Your task to perform on an android device: change the upload size in google photos Image 0: 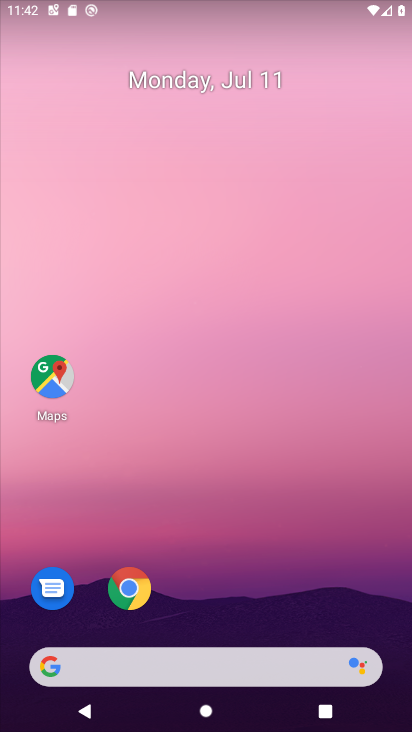
Step 0: drag from (256, 673) to (223, 270)
Your task to perform on an android device: change the upload size in google photos Image 1: 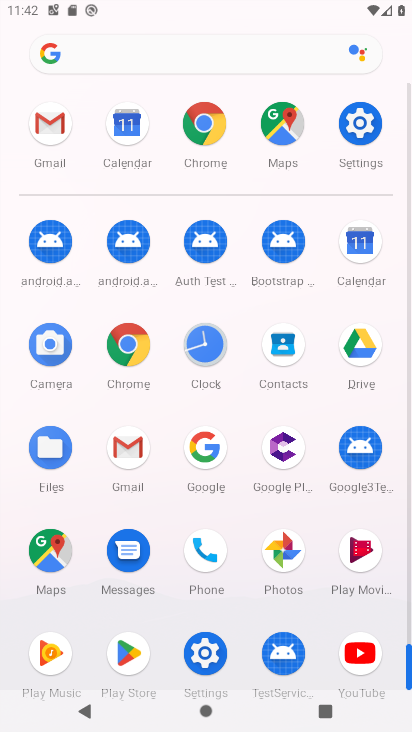
Step 1: click (275, 551)
Your task to perform on an android device: change the upload size in google photos Image 2: 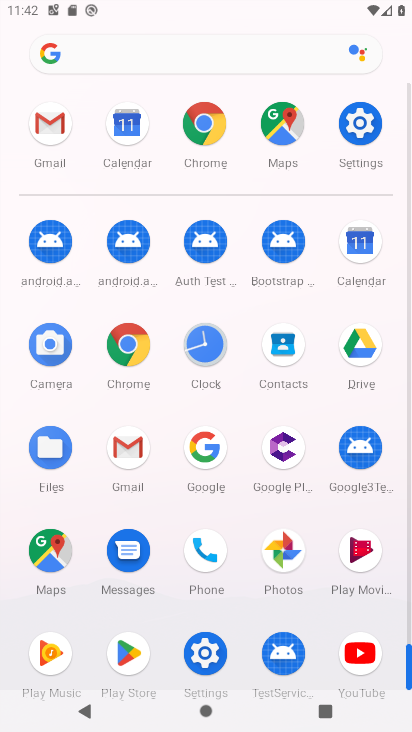
Step 2: click (274, 551)
Your task to perform on an android device: change the upload size in google photos Image 3: 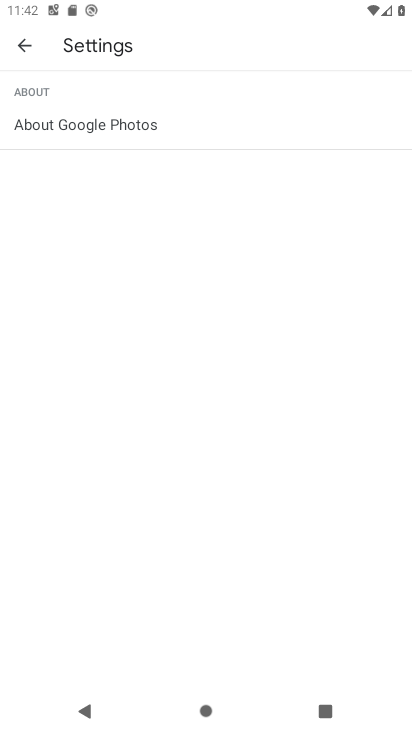
Step 3: click (286, 553)
Your task to perform on an android device: change the upload size in google photos Image 4: 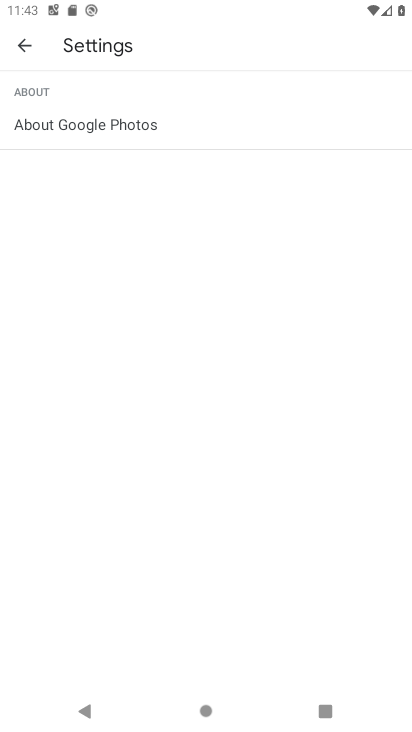
Step 4: click (29, 51)
Your task to perform on an android device: change the upload size in google photos Image 5: 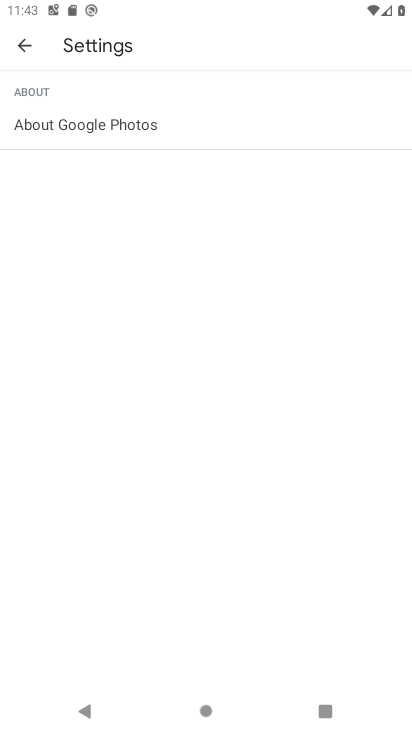
Step 5: click (23, 49)
Your task to perform on an android device: change the upload size in google photos Image 6: 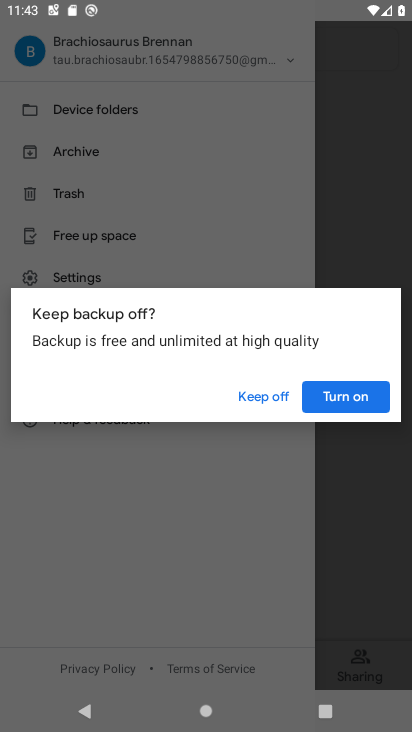
Step 6: click (251, 396)
Your task to perform on an android device: change the upload size in google photos Image 7: 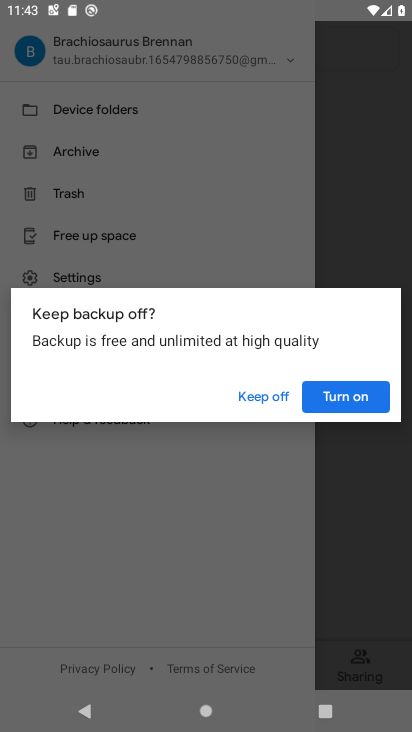
Step 7: click (248, 395)
Your task to perform on an android device: change the upload size in google photos Image 8: 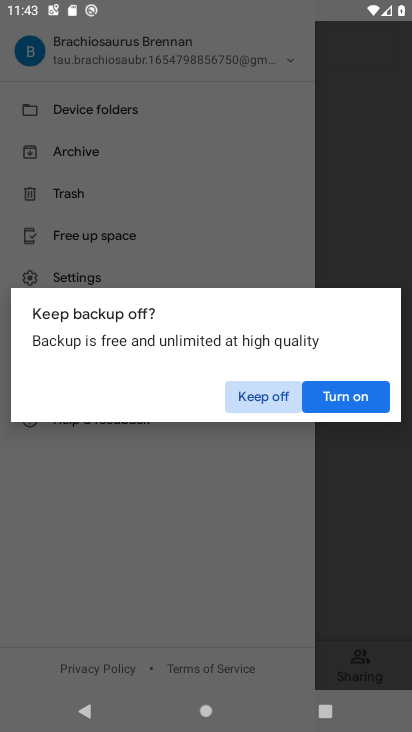
Step 8: click (248, 395)
Your task to perform on an android device: change the upload size in google photos Image 9: 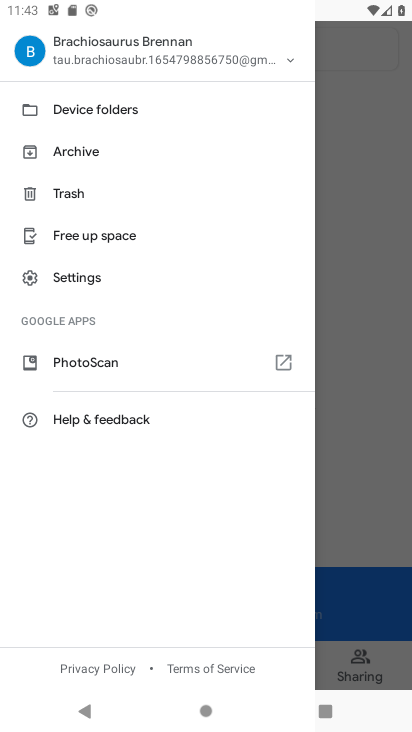
Step 9: click (73, 278)
Your task to perform on an android device: change the upload size in google photos Image 10: 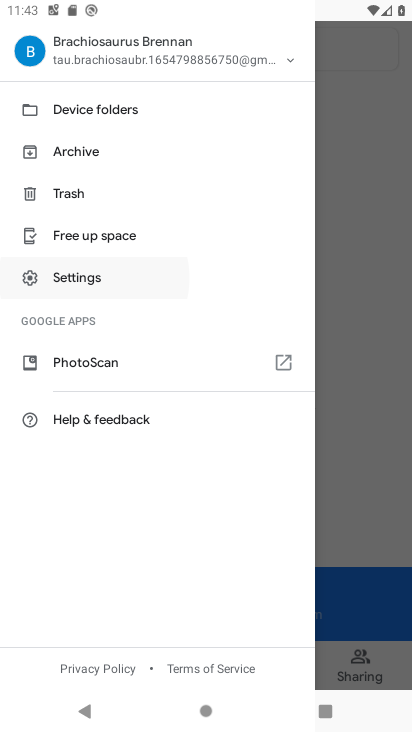
Step 10: click (73, 278)
Your task to perform on an android device: change the upload size in google photos Image 11: 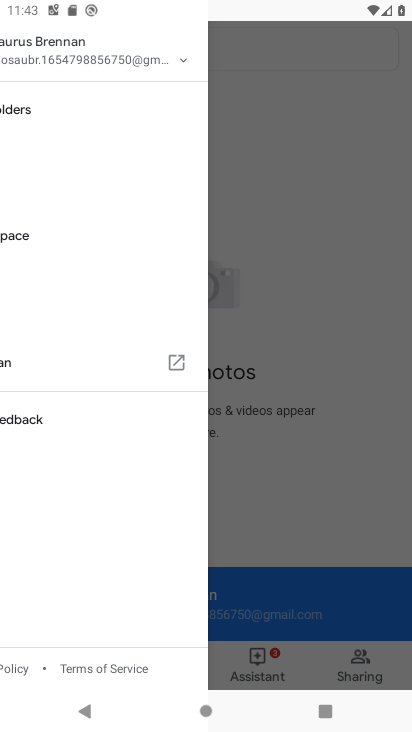
Step 11: click (74, 279)
Your task to perform on an android device: change the upload size in google photos Image 12: 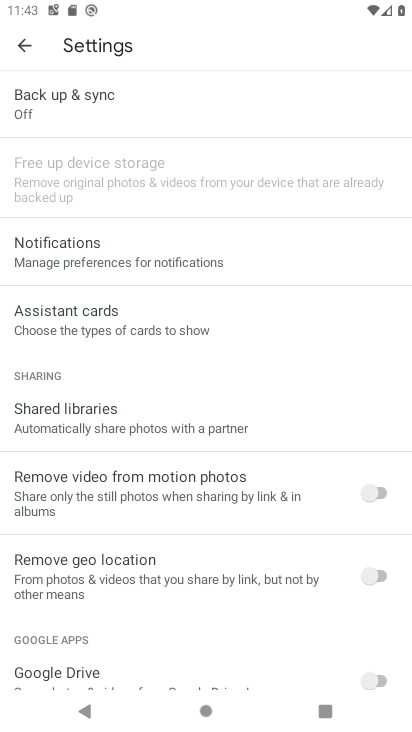
Step 12: click (65, 95)
Your task to perform on an android device: change the upload size in google photos Image 13: 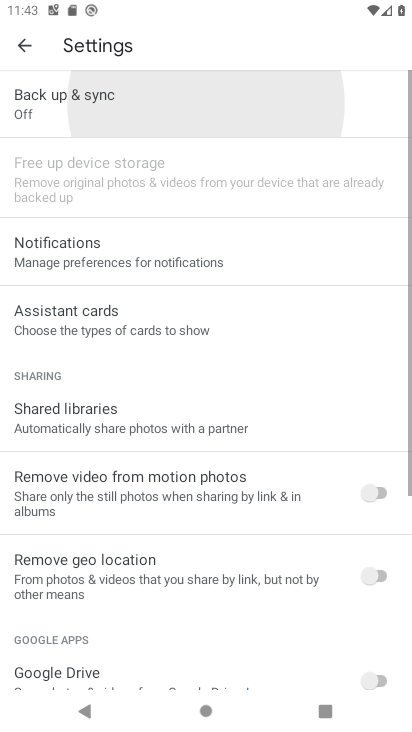
Step 13: click (66, 96)
Your task to perform on an android device: change the upload size in google photos Image 14: 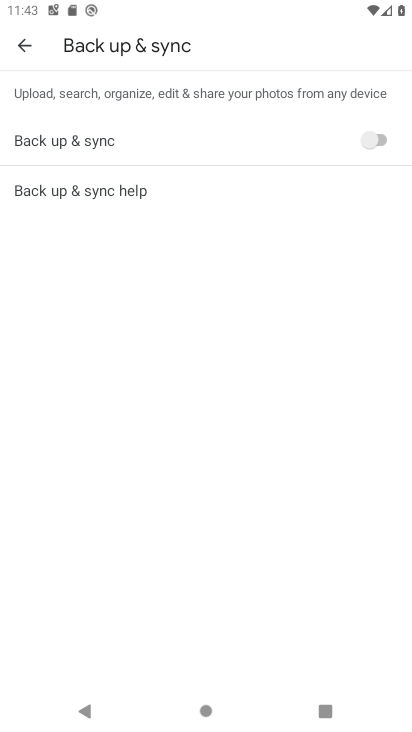
Step 14: click (158, 97)
Your task to perform on an android device: change the upload size in google photos Image 15: 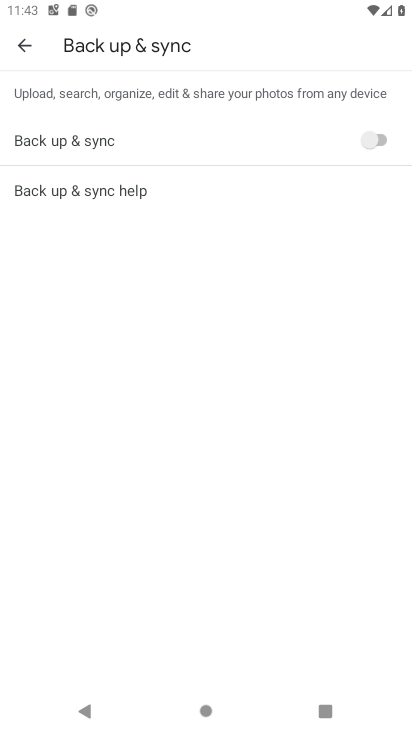
Step 15: click (271, 102)
Your task to perform on an android device: change the upload size in google photos Image 16: 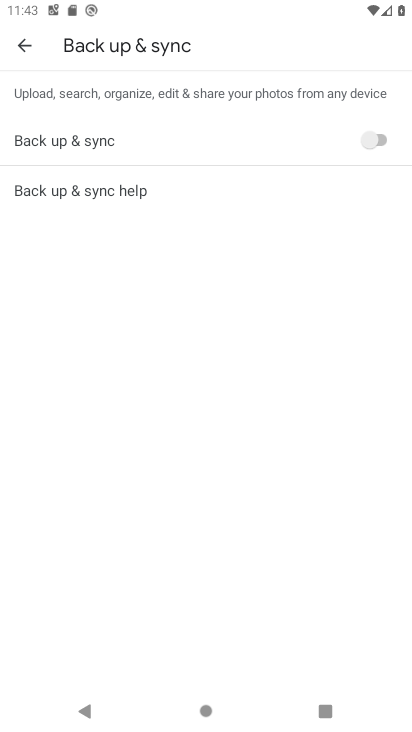
Step 16: click (269, 102)
Your task to perform on an android device: change the upload size in google photos Image 17: 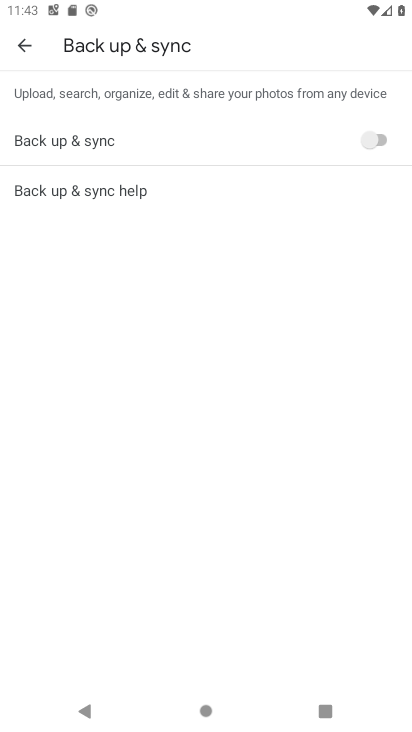
Step 17: click (268, 106)
Your task to perform on an android device: change the upload size in google photos Image 18: 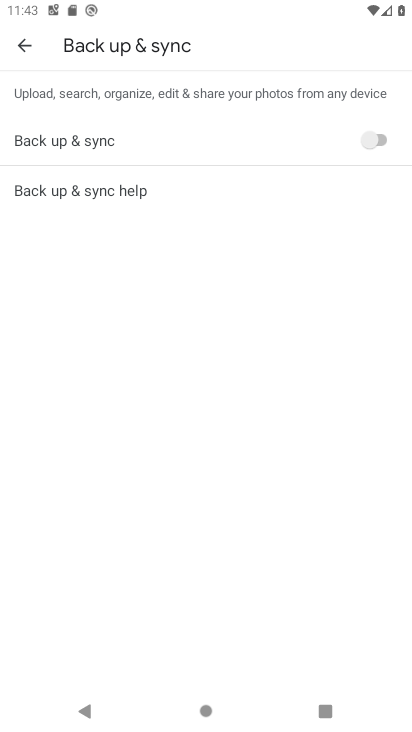
Step 18: click (368, 141)
Your task to perform on an android device: change the upload size in google photos Image 19: 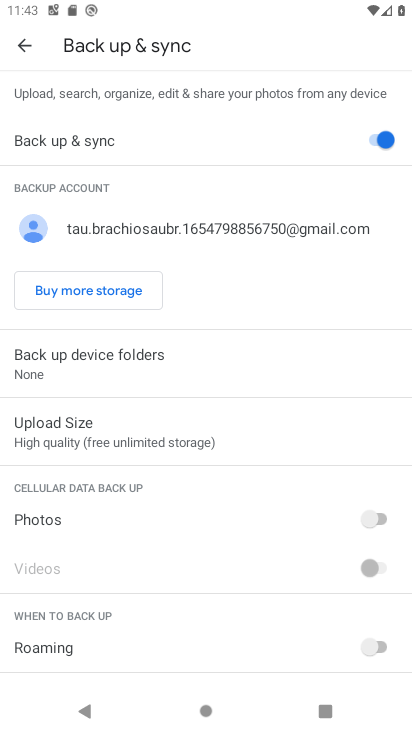
Step 19: click (75, 430)
Your task to perform on an android device: change the upload size in google photos Image 20: 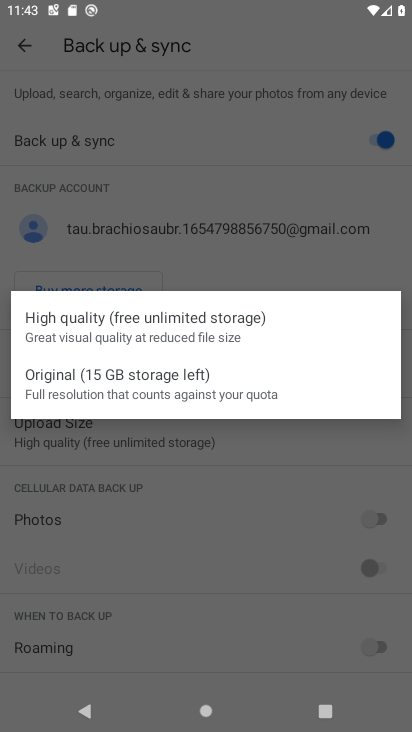
Step 20: click (61, 379)
Your task to perform on an android device: change the upload size in google photos Image 21: 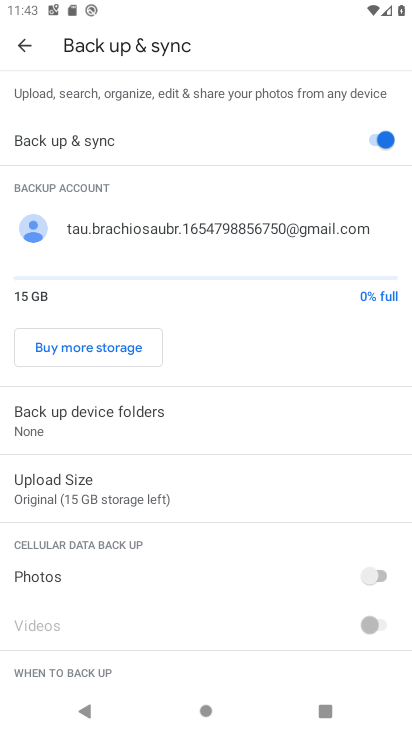
Step 21: task complete